Your task to perform on an android device: See recent photos Image 0: 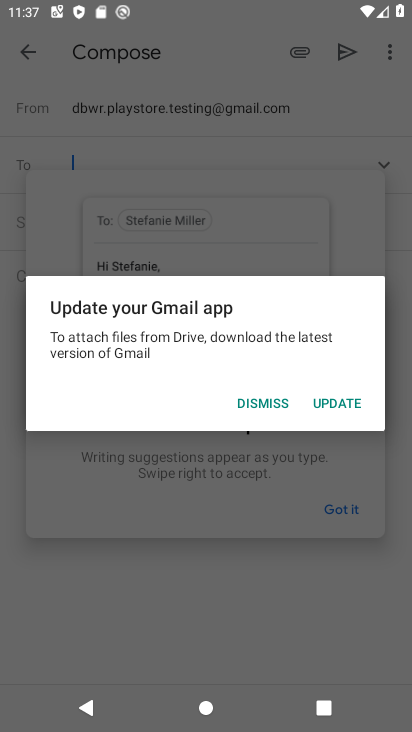
Step 0: press home button
Your task to perform on an android device: See recent photos Image 1: 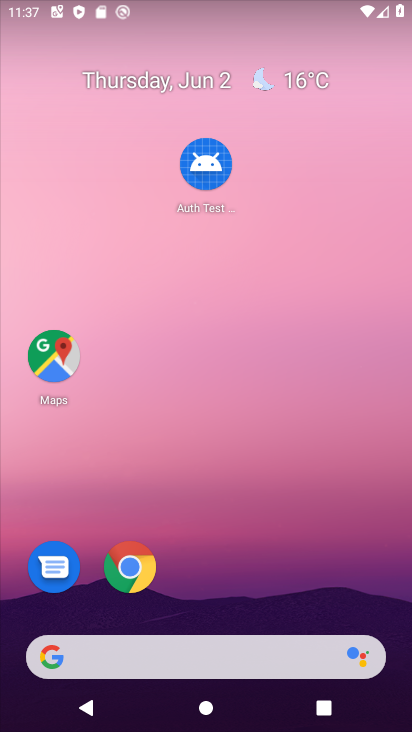
Step 1: drag from (195, 607) to (200, 138)
Your task to perform on an android device: See recent photos Image 2: 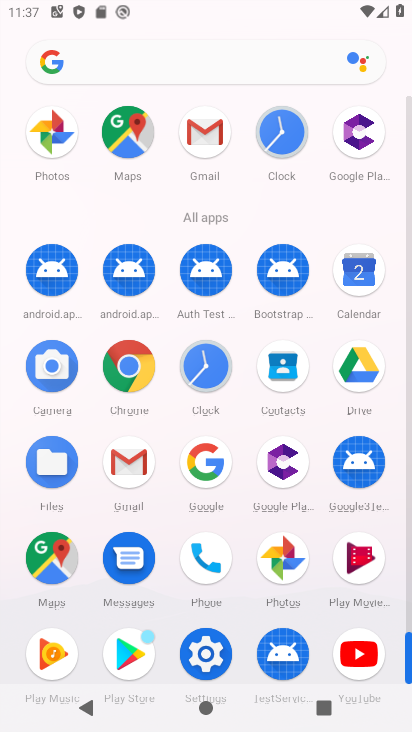
Step 2: click (47, 116)
Your task to perform on an android device: See recent photos Image 3: 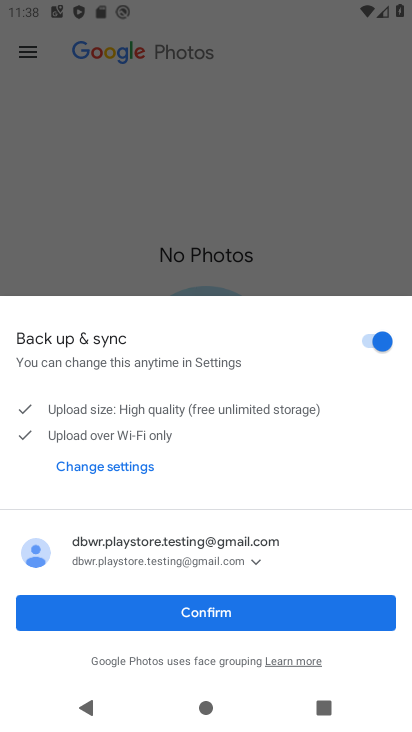
Step 3: click (214, 608)
Your task to perform on an android device: See recent photos Image 4: 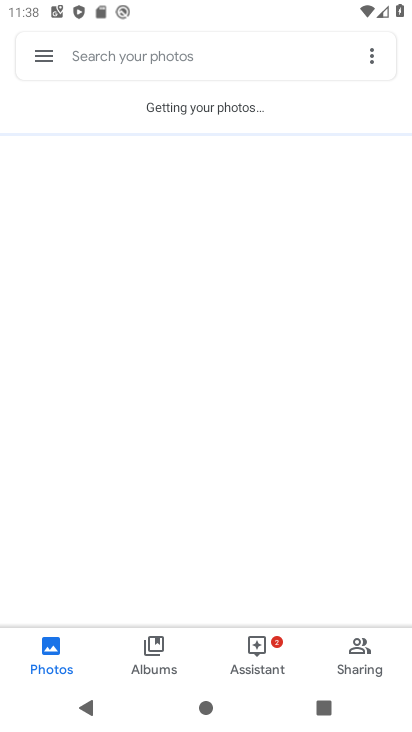
Step 4: task complete